Your task to perform on an android device: Open Google Maps and go to "Timeline" Image 0: 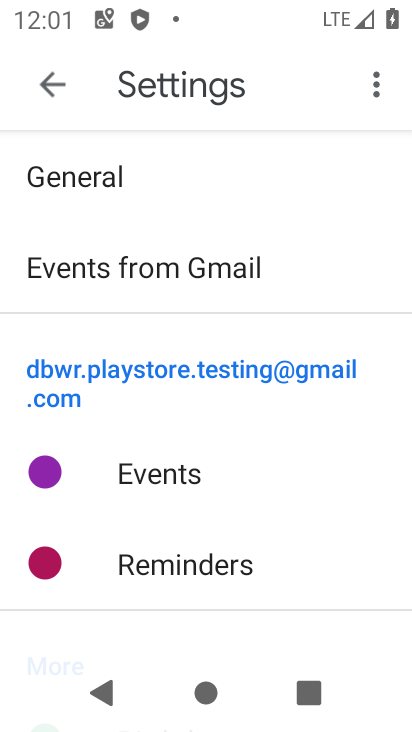
Step 0: press home button
Your task to perform on an android device: Open Google Maps and go to "Timeline" Image 1: 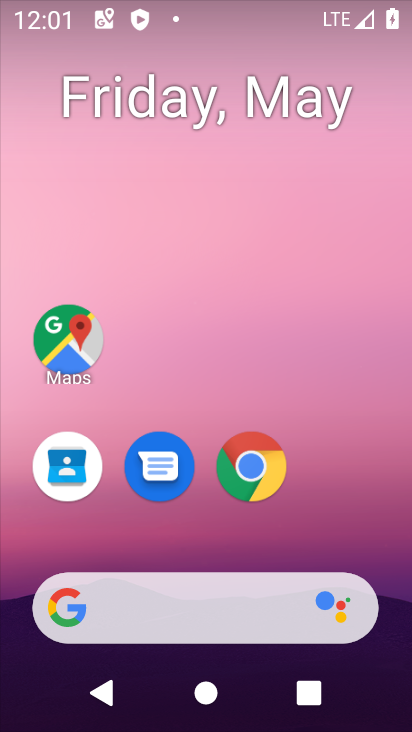
Step 1: drag from (322, 531) to (209, 2)
Your task to perform on an android device: Open Google Maps and go to "Timeline" Image 2: 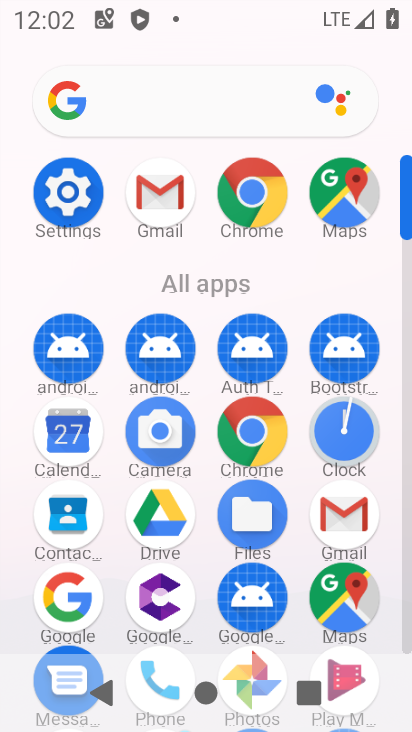
Step 2: click (325, 603)
Your task to perform on an android device: Open Google Maps and go to "Timeline" Image 3: 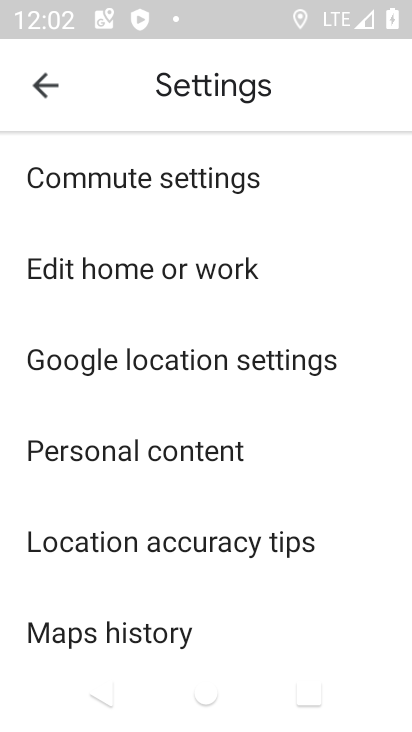
Step 3: click (38, 89)
Your task to perform on an android device: Open Google Maps and go to "Timeline" Image 4: 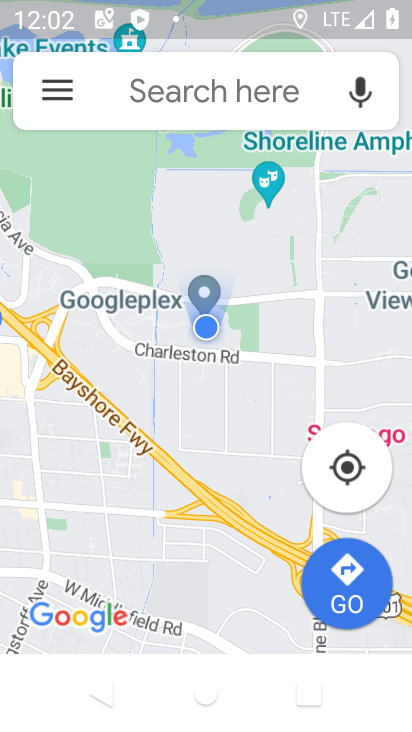
Step 4: click (47, 94)
Your task to perform on an android device: Open Google Maps and go to "Timeline" Image 5: 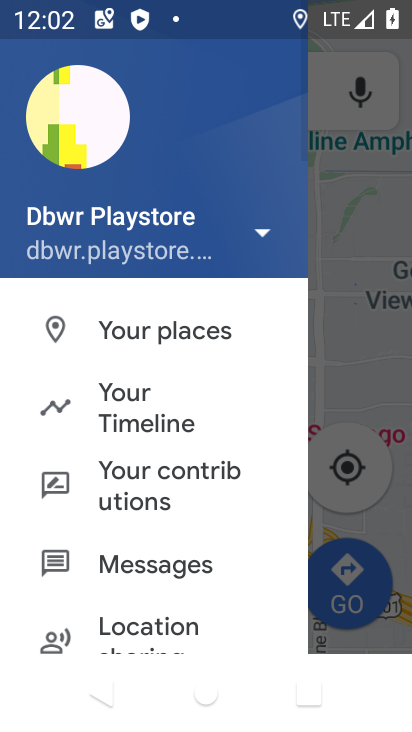
Step 5: click (136, 421)
Your task to perform on an android device: Open Google Maps and go to "Timeline" Image 6: 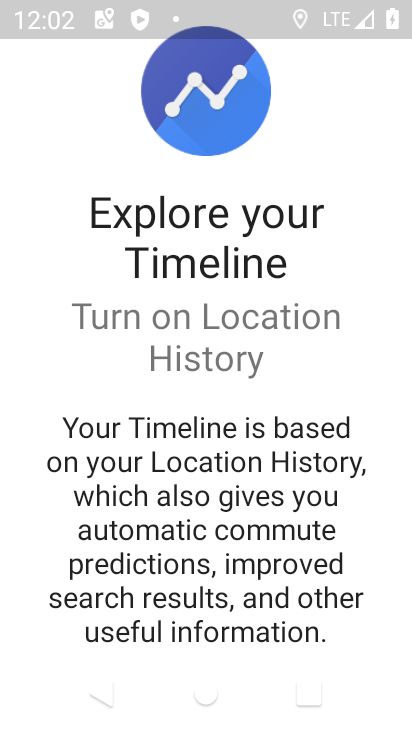
Step 6: drag from (231, 588) to (260, 191)
Your task to perform on an android device: Open Google Maps and go to "Timeline" Image 7: 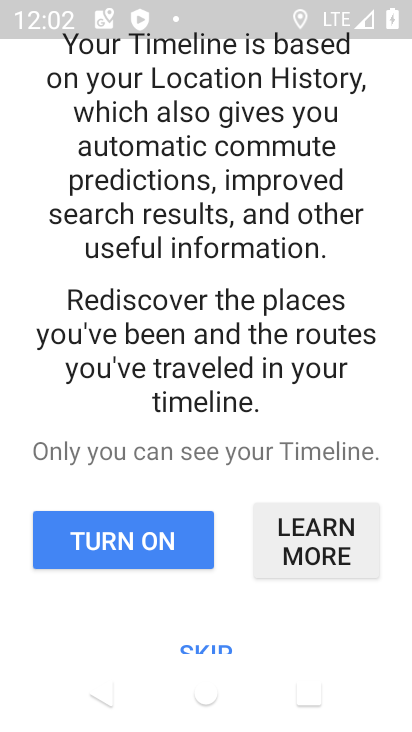
Step 7: click (213, 650)
Your task to perform on an android device: Open Google Maps and go to "Timeline" Image 8: 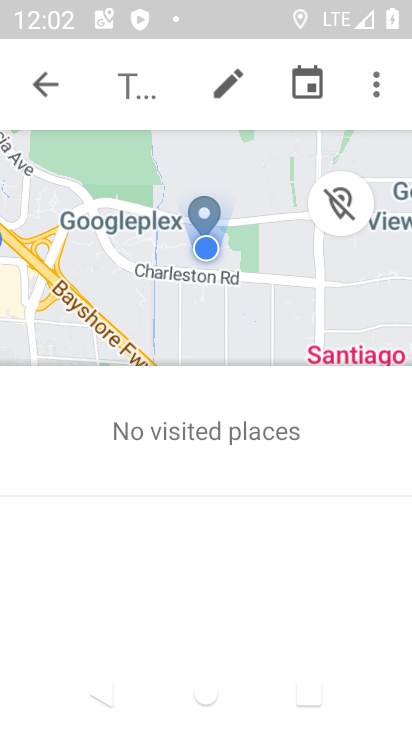
Step 8: task complete